Your task to perform on an android device: allow cookies in the chrome app Image 0: 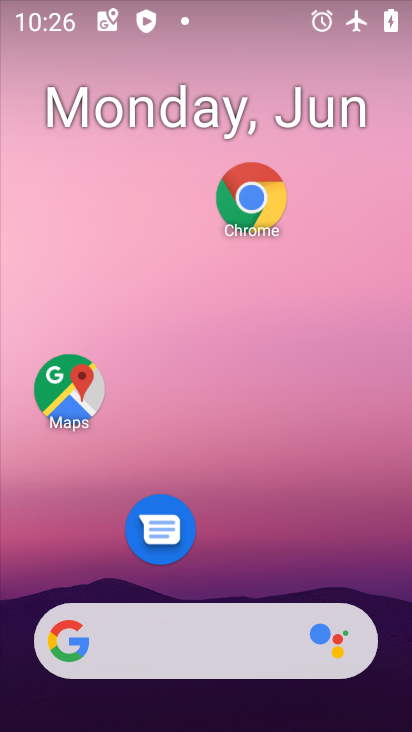
Step 0: click (269, 214)
Your task to perform on an android device: allow cookies in the chrome app Image 1: 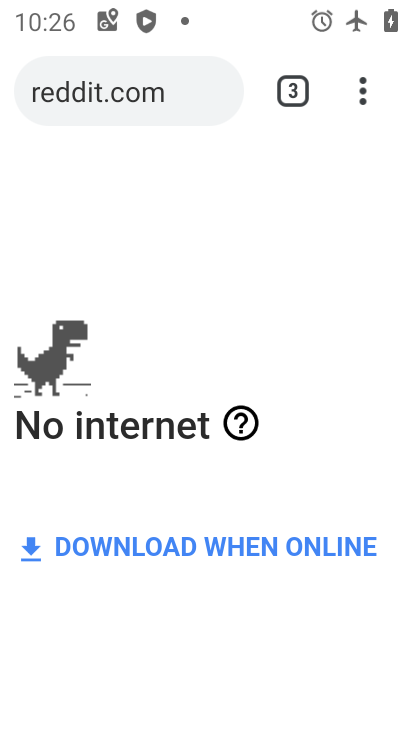
Step 1: click (370, 96)
Your task to perform on an android device: allow cookies in the chrome app Image 2: 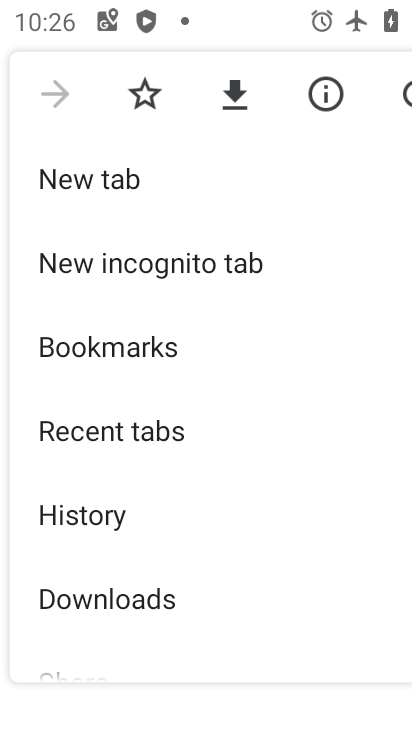
Step 2: drag from (141, 608) to (159, 298)
Your task to perform on an android device: allow cookies in the chrome app Image 3: 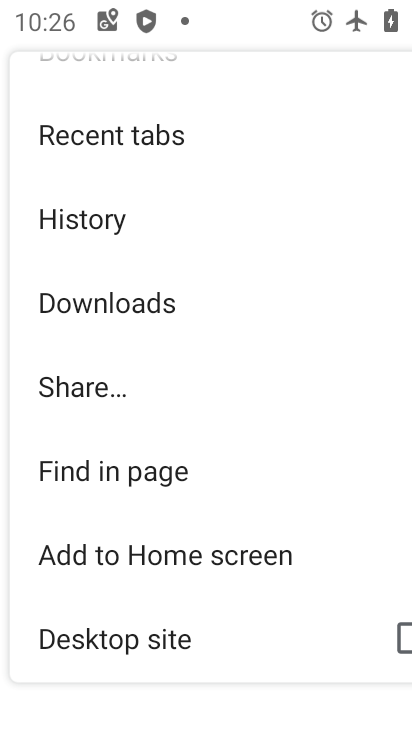
Step 3: drag from (150, 577) to (166, 283)
Your task to perform on an android device: allow cookies in the chrome app Image 4: 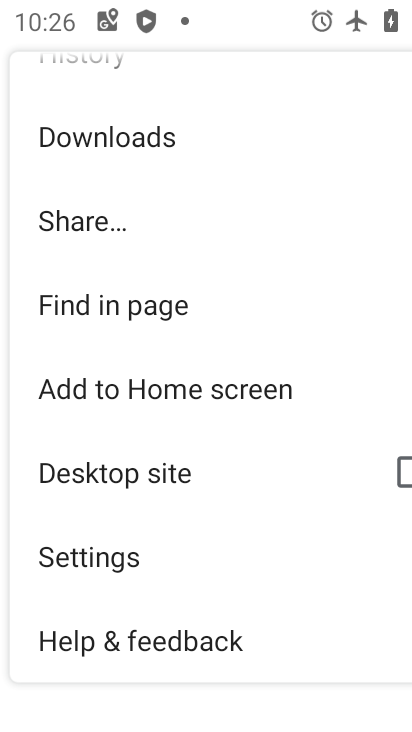
Step 4: drag from (146, 560) to (211, 259)
Your task to perform on an android device: allow cookies in the chrome app Image 5: 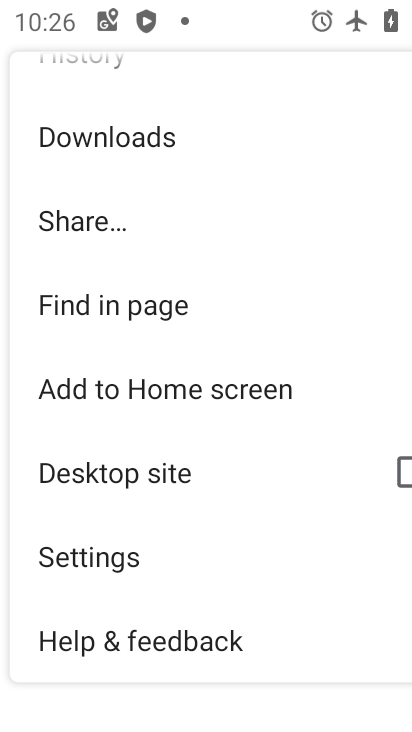
Step 5: click (147, 550)
Your task to perform on an android device: allow cookies in the chrome app Image 6: 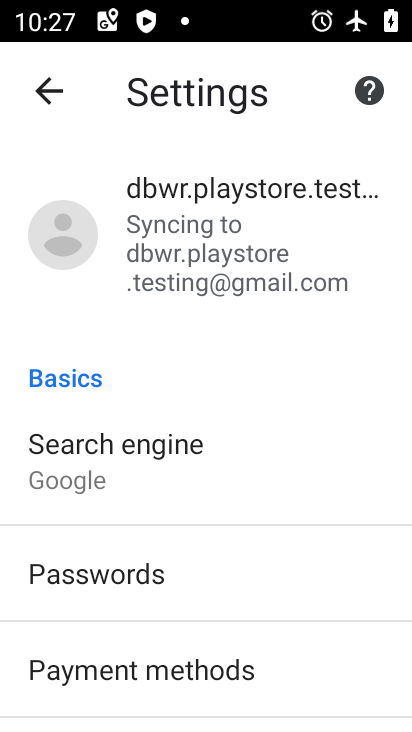
Step 6: drag from (239, 593) to (276, 244)
Your task to perform on an android device: allow cookies in the chrome app Image 7: 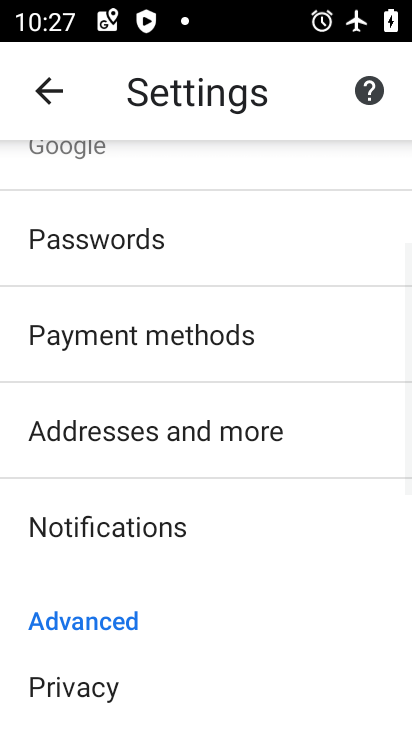
Step 7: drag from (209, 615) to (252, 314)
Your task to perform on an android device: allow cookies in the chrome app Image 8: 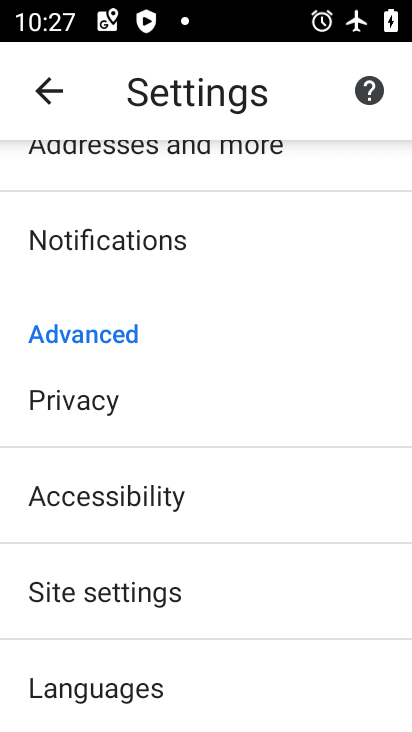
Step 8: click (221, 602)
Your task to perform on an android device: allow cookies in the chrome app Image 9: 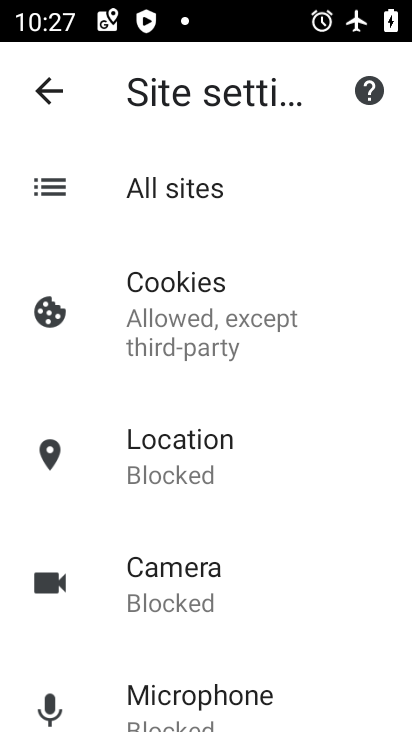
Step 9: click (237, 312)
Your task to perform on an android device: allow cookies in the chrome app Image 10: 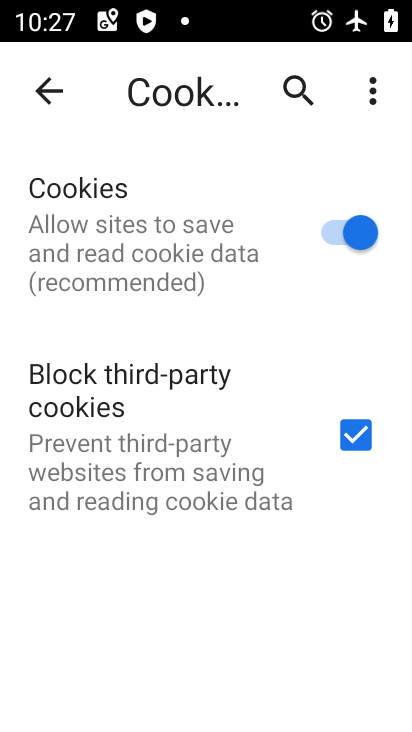
Step 10: task complete